Your task to perform on an android device: Clear all items from cart on ebay.com. Add bose soundlink to the cart on ebay.com Image 0: 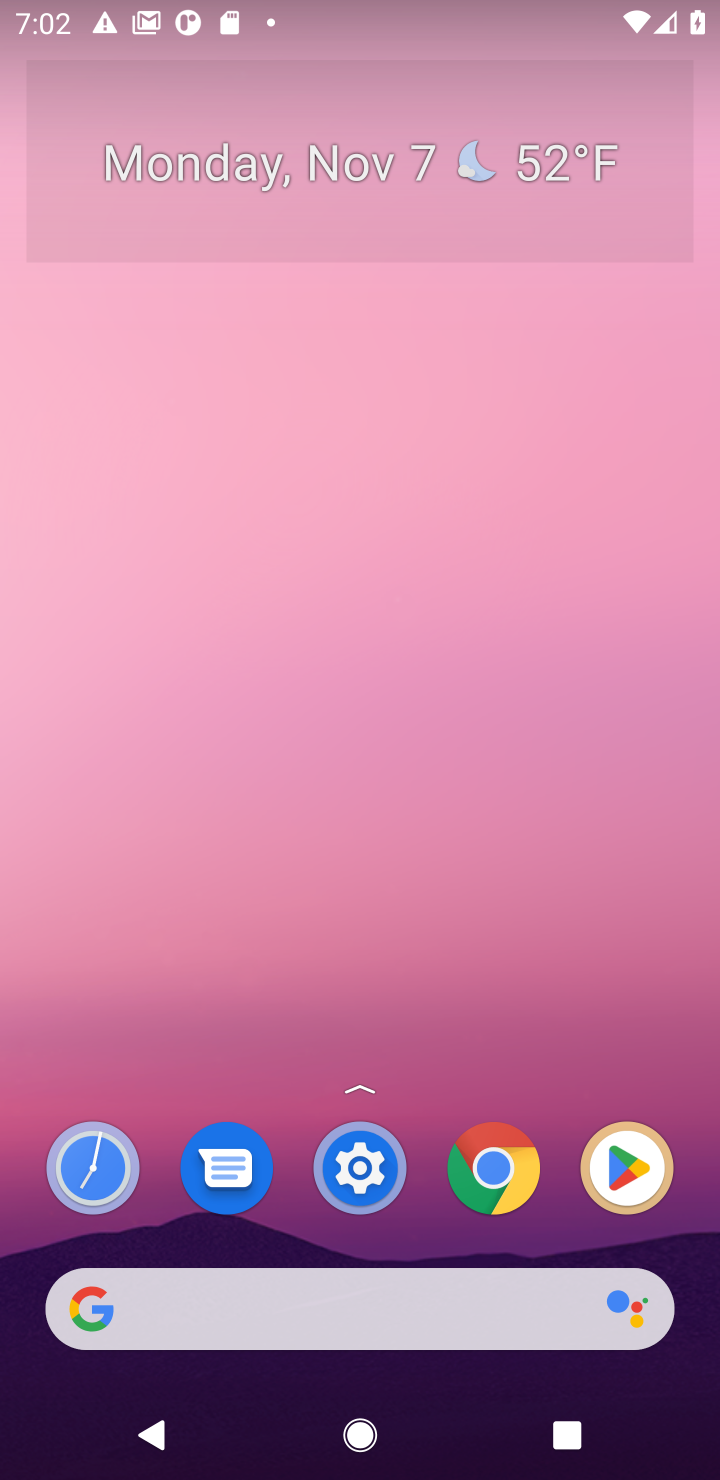
Step 0: click (376, 1291)
Your task to perform on an android device: Clear all items from cart on ebay.com. Add bose soundlink to the cart on ebay.com Image 1: 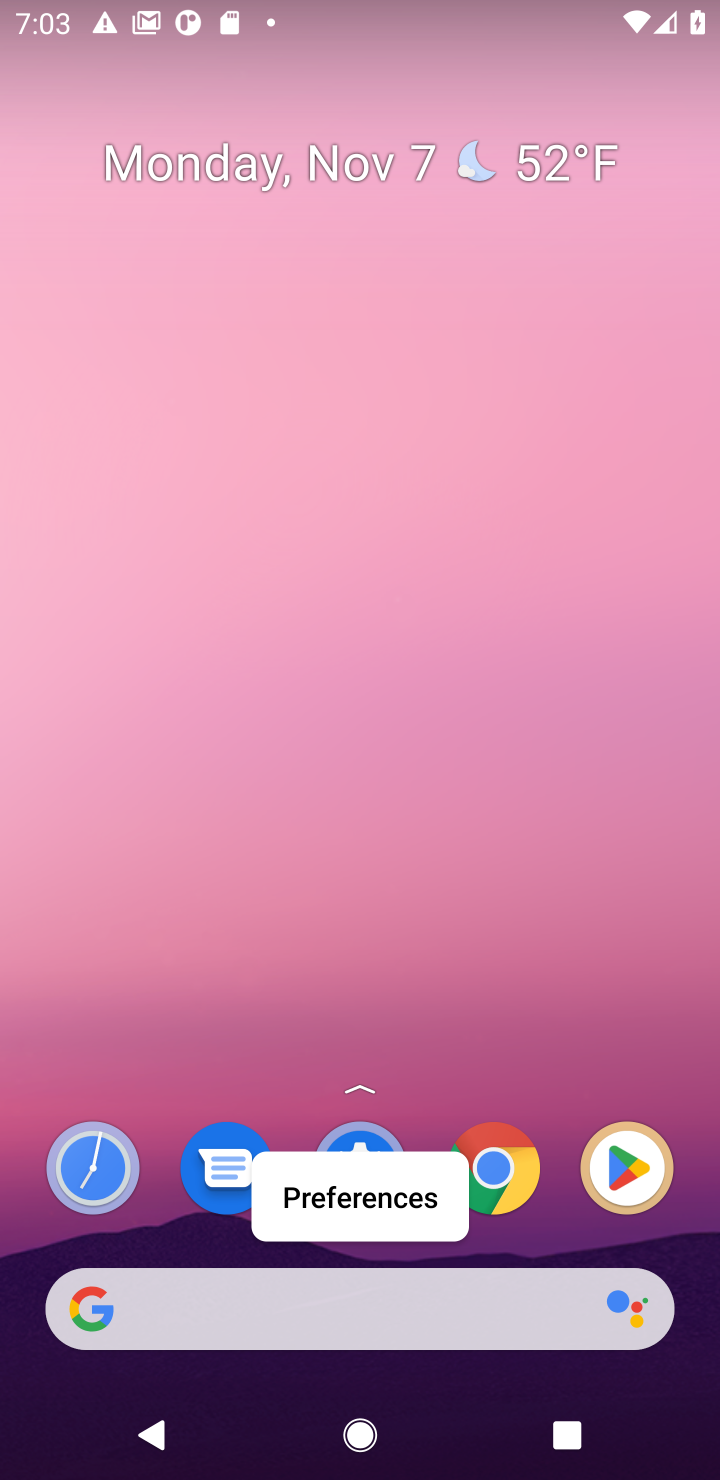
Step 1: click (376, 1291)
Your task to perform on an android device: Clear all items from cart on ebay.com. Add bose soundlink to the cart on ebay.com Image 2: 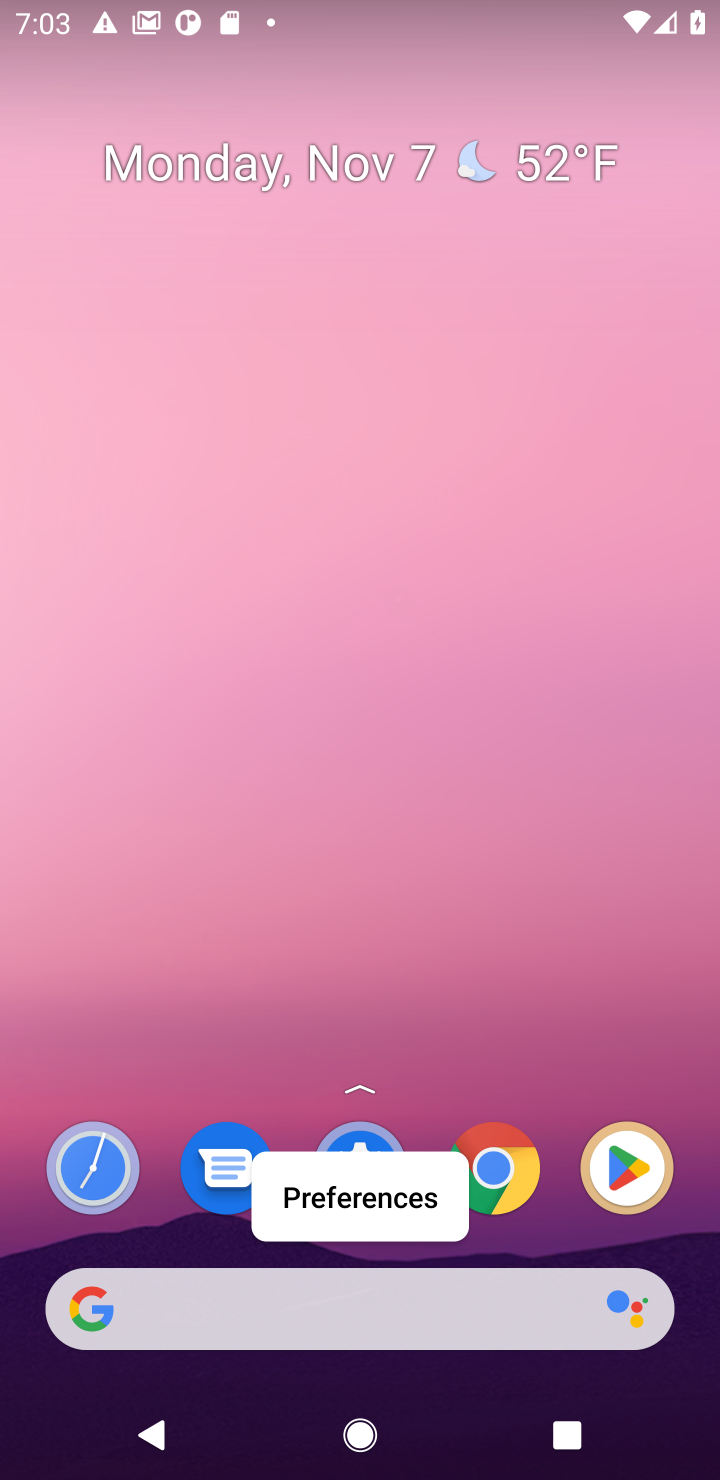
Step 2: click (357, 1320)
Your task to perform on an android device: Clear all items from cart on ebay.com. Add bose soundlink to the cart on ebay.com Image 3: 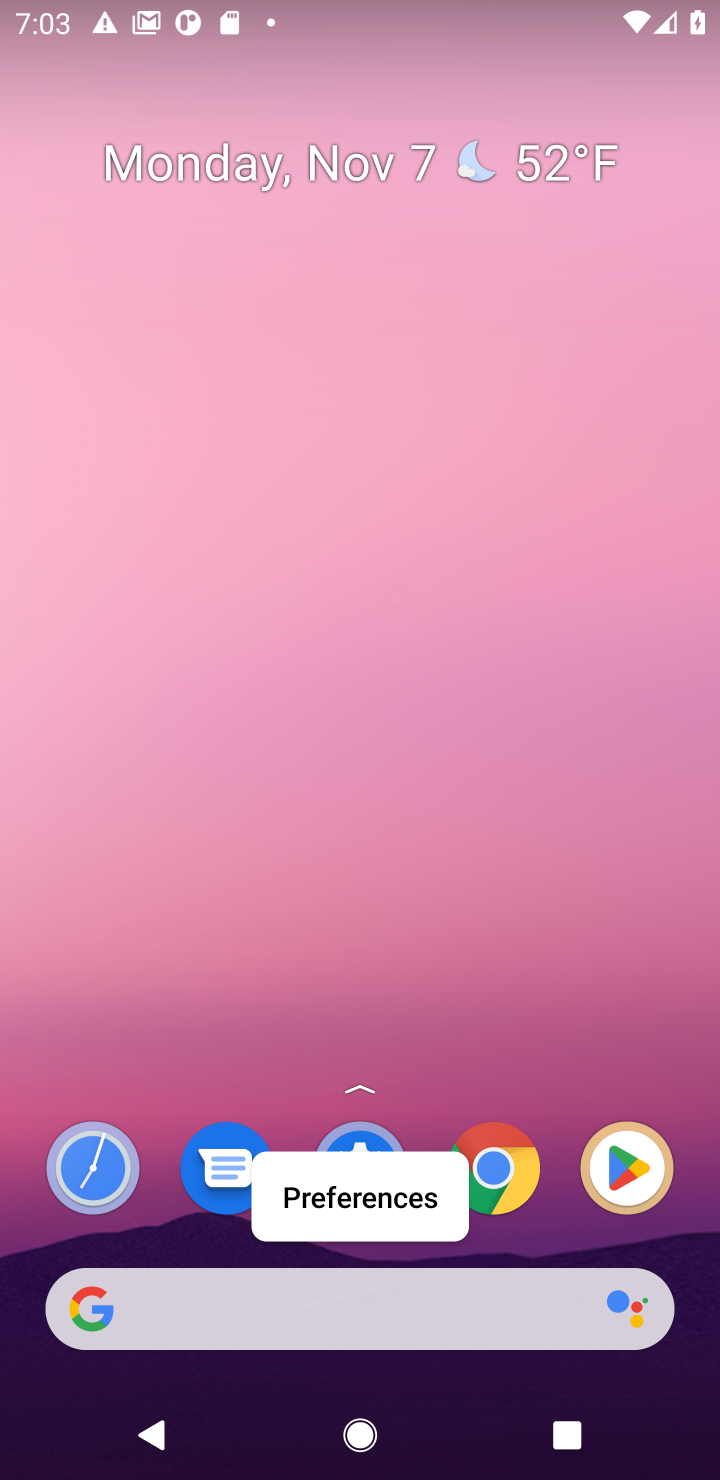
Step 3: click (380, 1285)
Your task to perform on an android device: Clear all items from cart on ebay.com. Add bose soundlink to the cart on ebay.com Image 4: 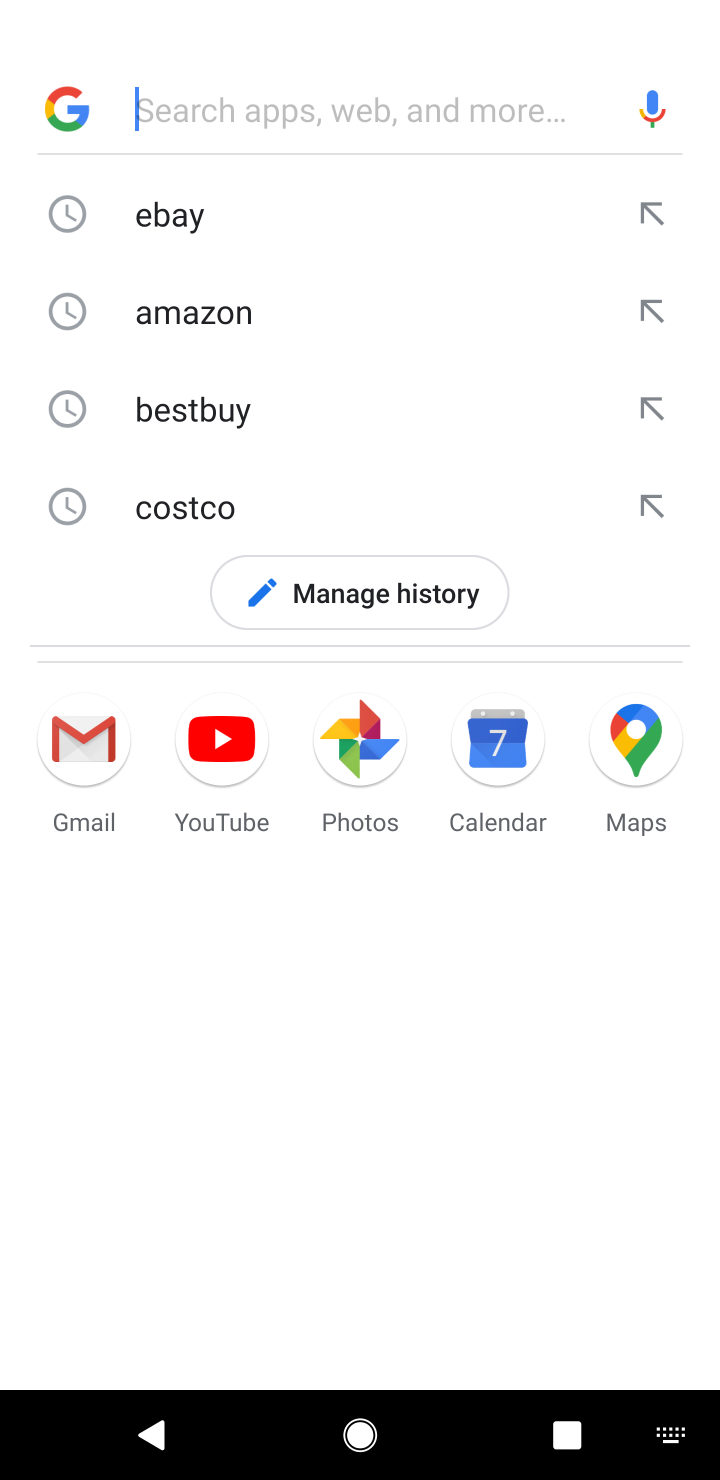
Step 4: type "ebay.com"
Your task to perform on an android device: Clear all items from cart on ebay.com. Add bose soundlink to the cart on ebay.com Image 5: 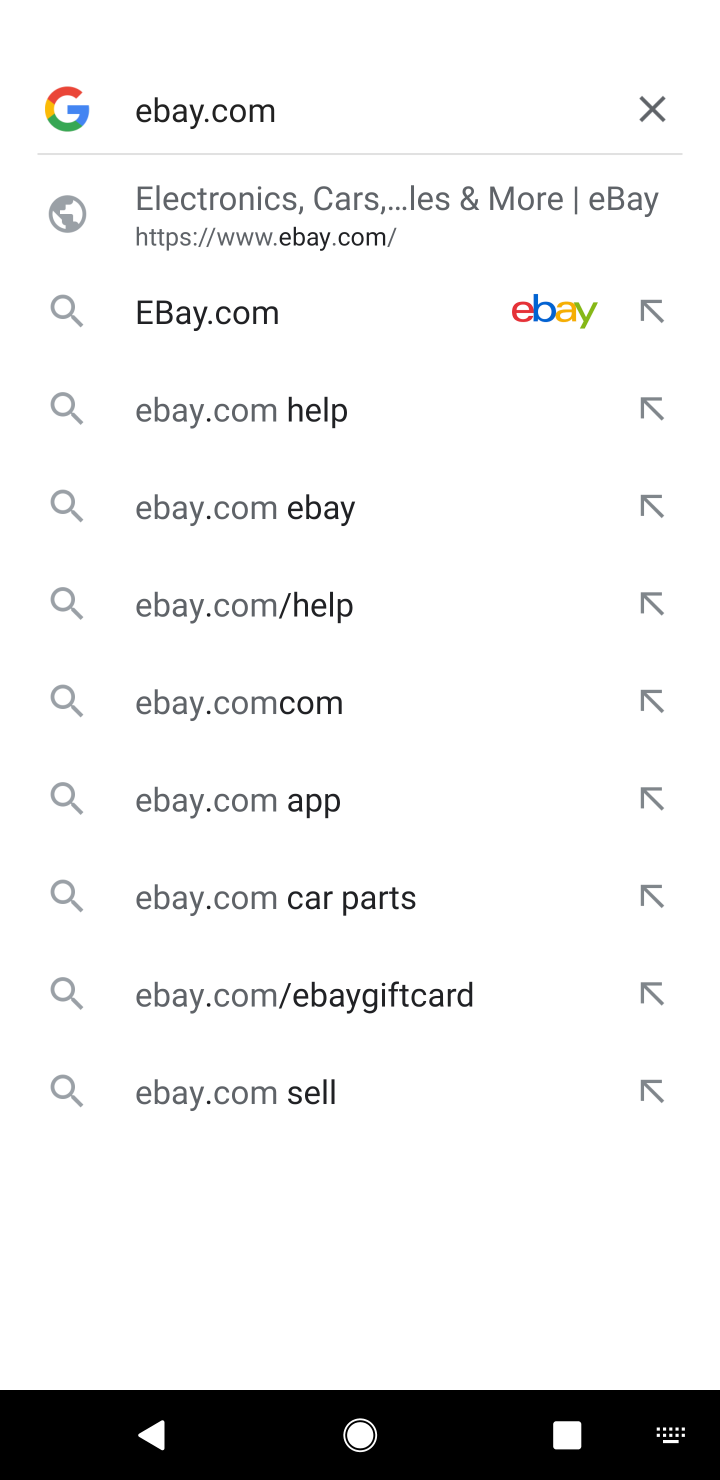
Step 5: type ""
Your task to perform on an android device: Clear all items from cart on ebay.com. Add bose soundlink to the cart on ebay.com Image 6: 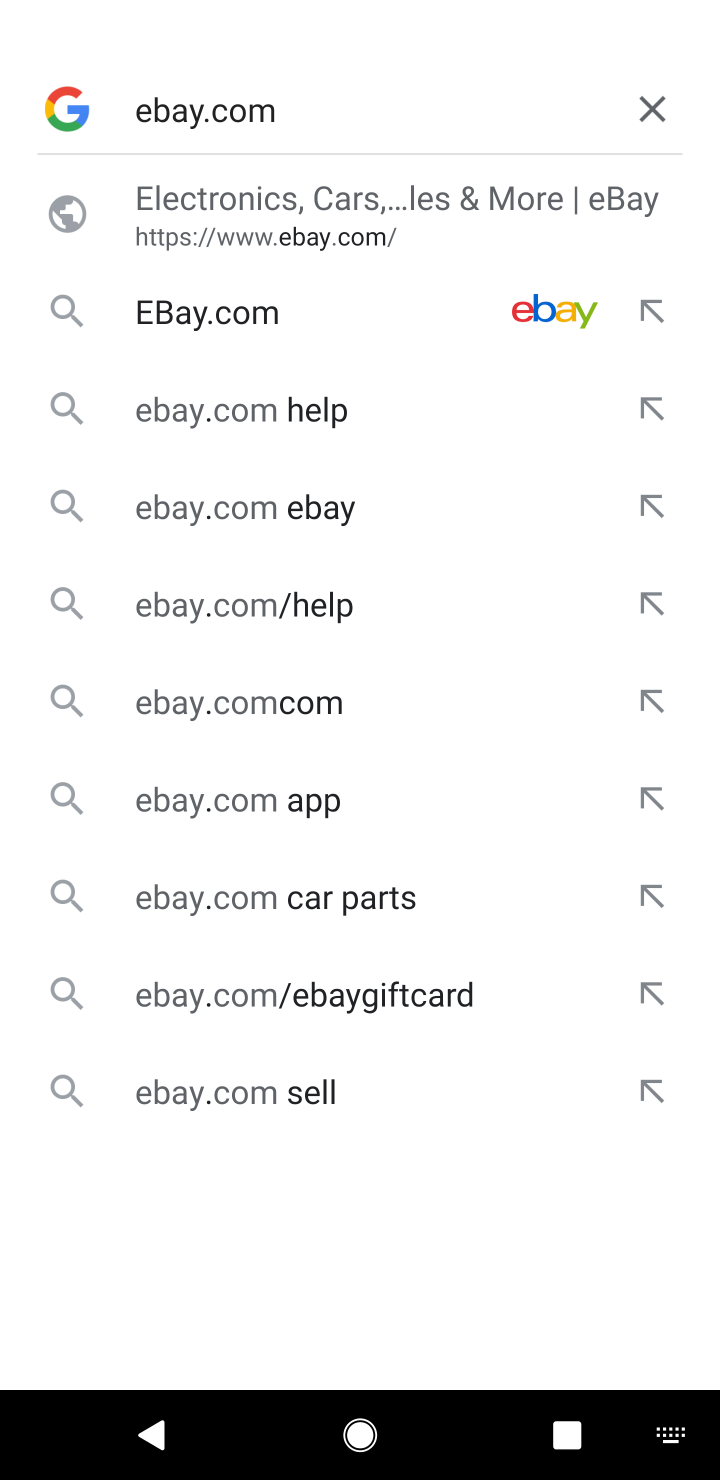
Step 6: press enter
Your task to perform on an android device: Clear all items from cart on ebay.com. Add bose soundlink to the cart on ebay.com Image 7: 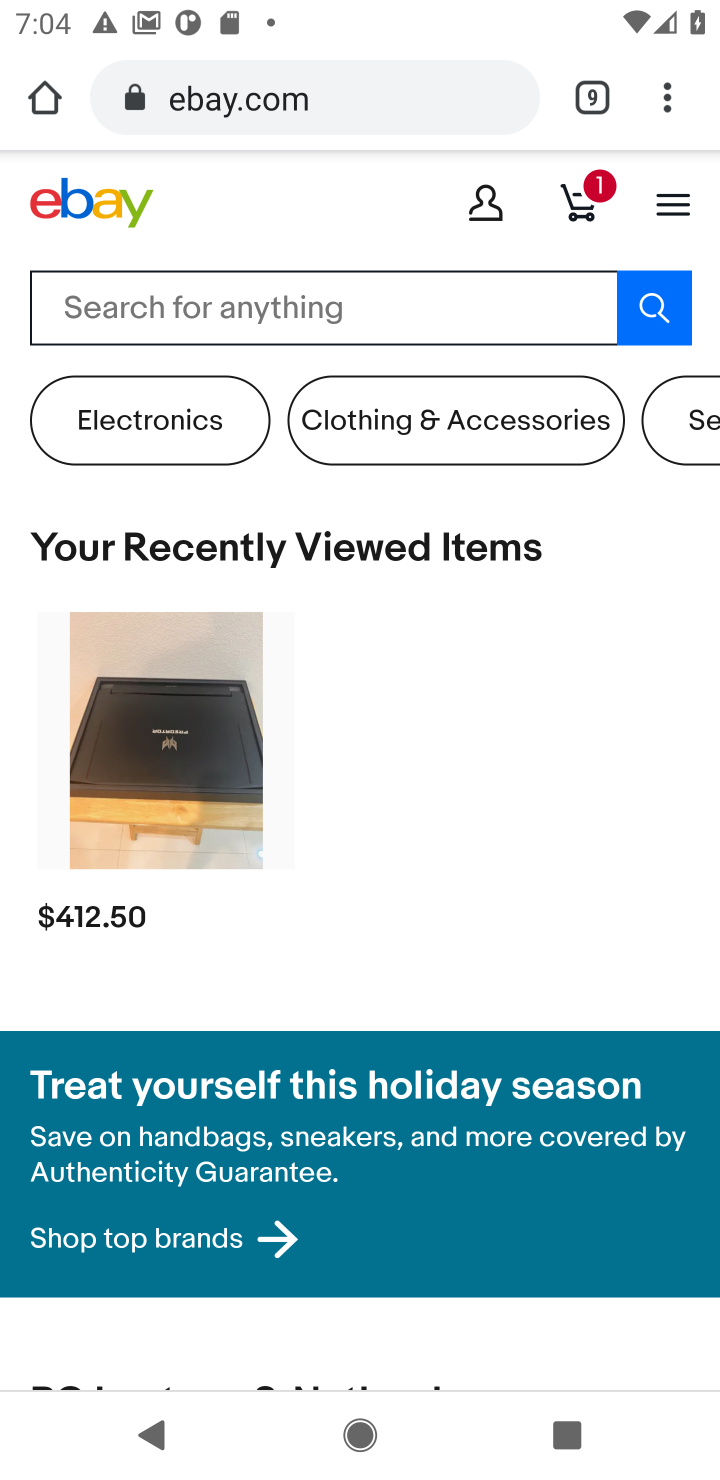
Step 7: click (242, 305)
Your task to perform on an android device: Clear all items from cart on ebay.com. Add bose soundlink to the cart on ebay.com Image 8: 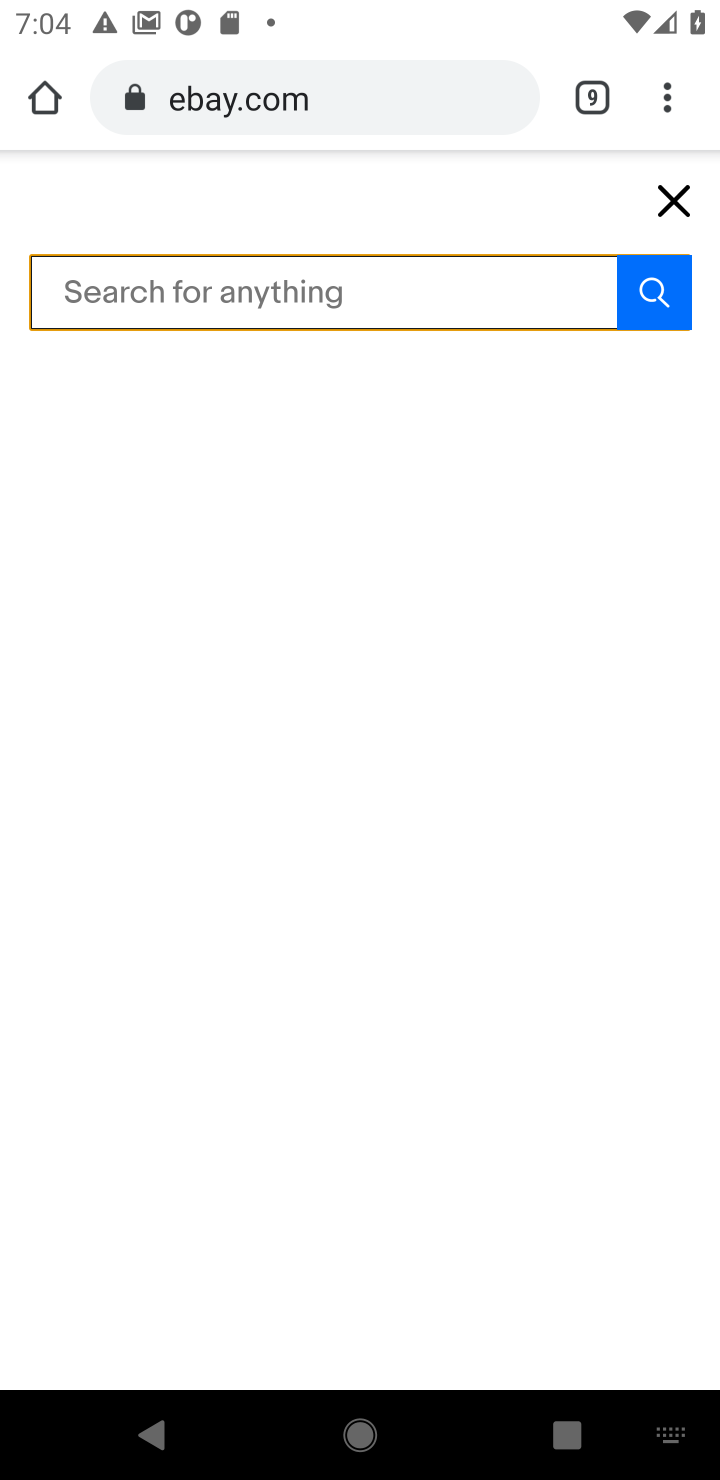
Step 8: click (659, 224)
Your task to perform on an android device: Clear all items from cart on ebay.com. Add bose soundlink to the cart on ebay.com Image 9: 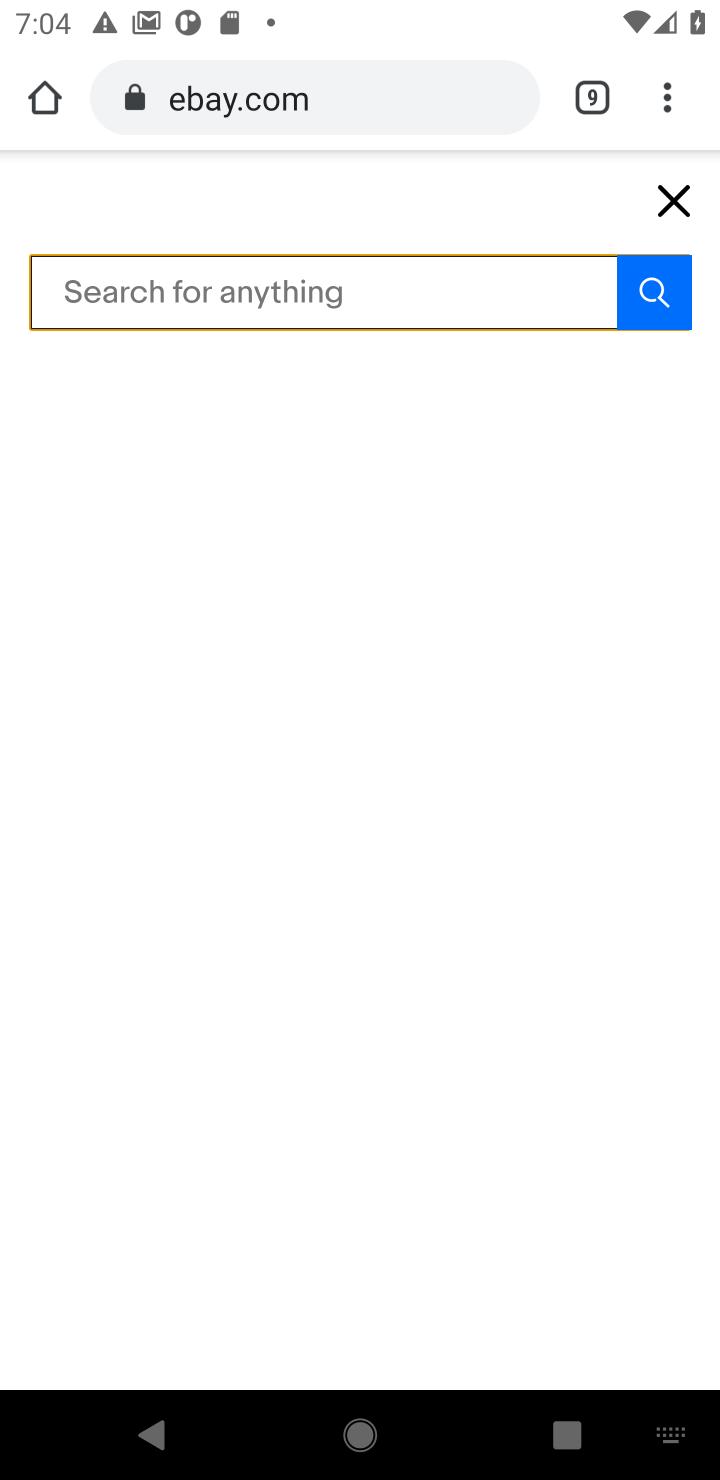
Step 9: click (677, 204)
Your task to perform on an android device: Clear all items from cart on ebay.com. Add bose soundlink to the cart on ebay.com Image 10: 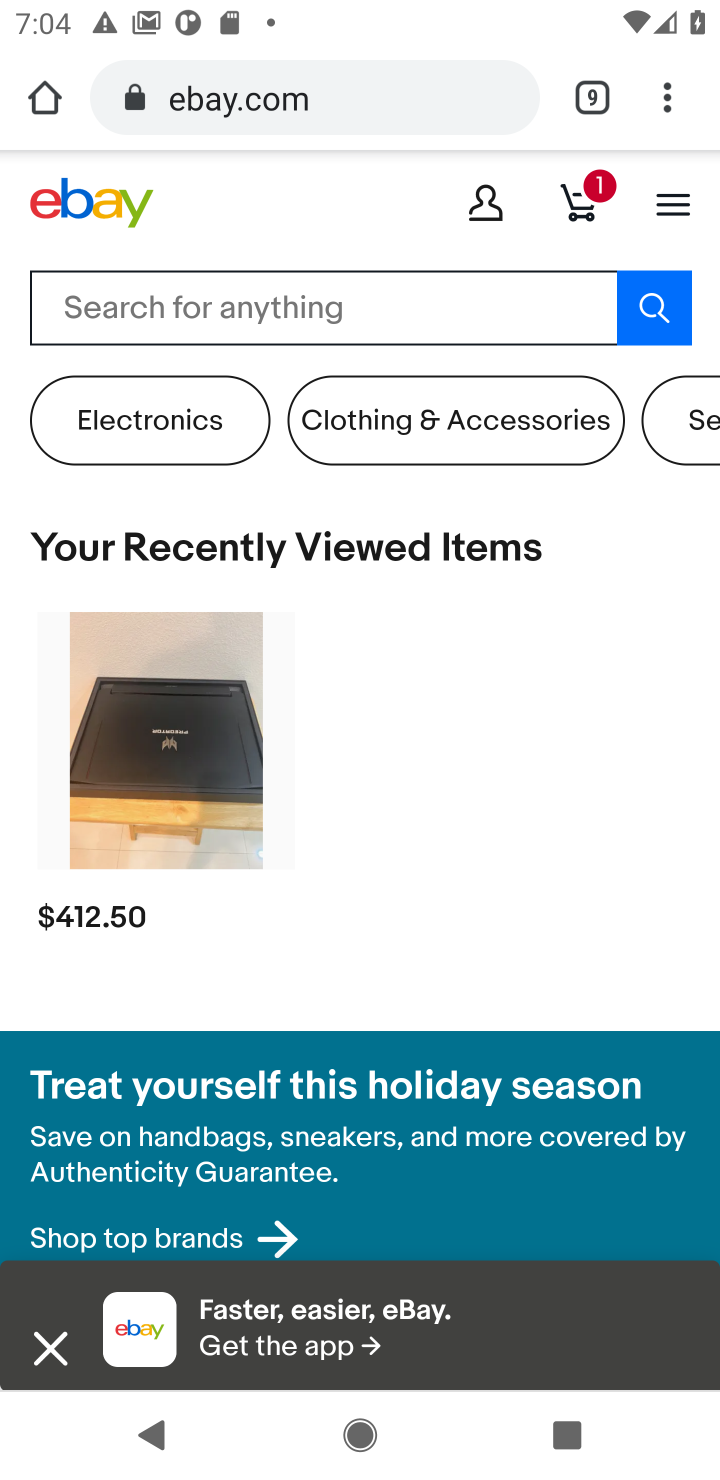
Step 10: click (590, 204)
Your task to perform on an android device: Clear all items from cart on ebay.com. Add bose soundlink to the cart on ebay.com Image 11: 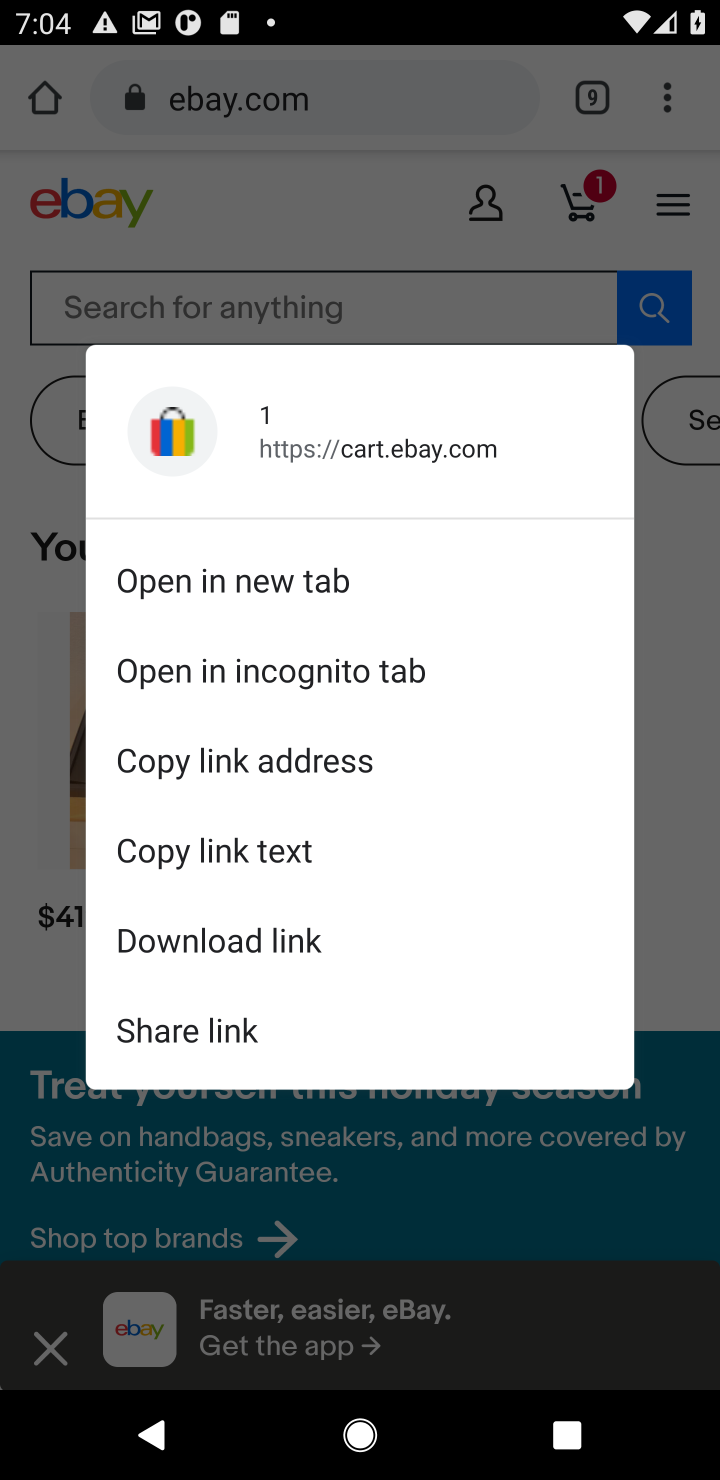
Step 11: click (573, 190)
Your task to perform on an android device: Clear all items from cart on ebay.com. Add bose soundlink to the cart on ebay.com Image 12: 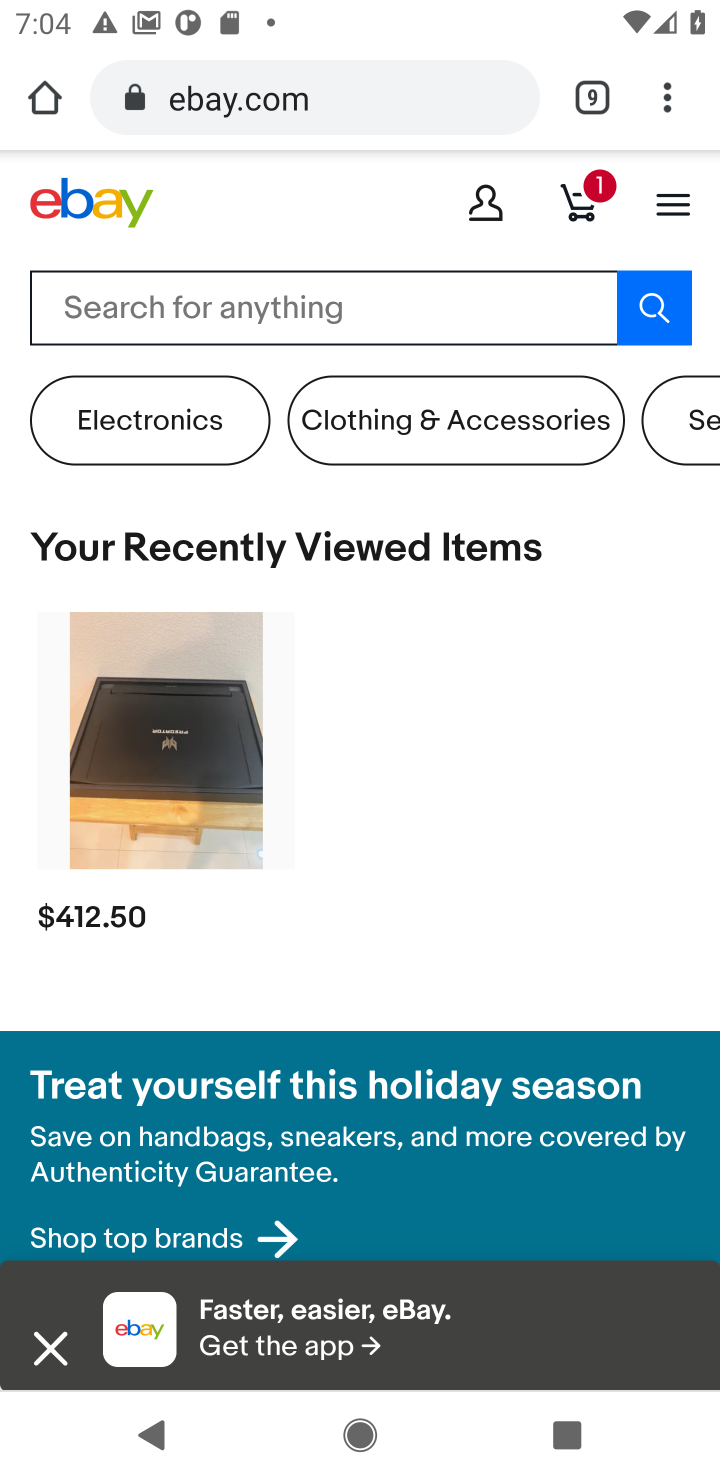
Step 12: click (573, 190)
Your task to perform on an android device: Clear all items from cart on ebay.com. Add bose soundlink to the cart on ebay.com Image 13: 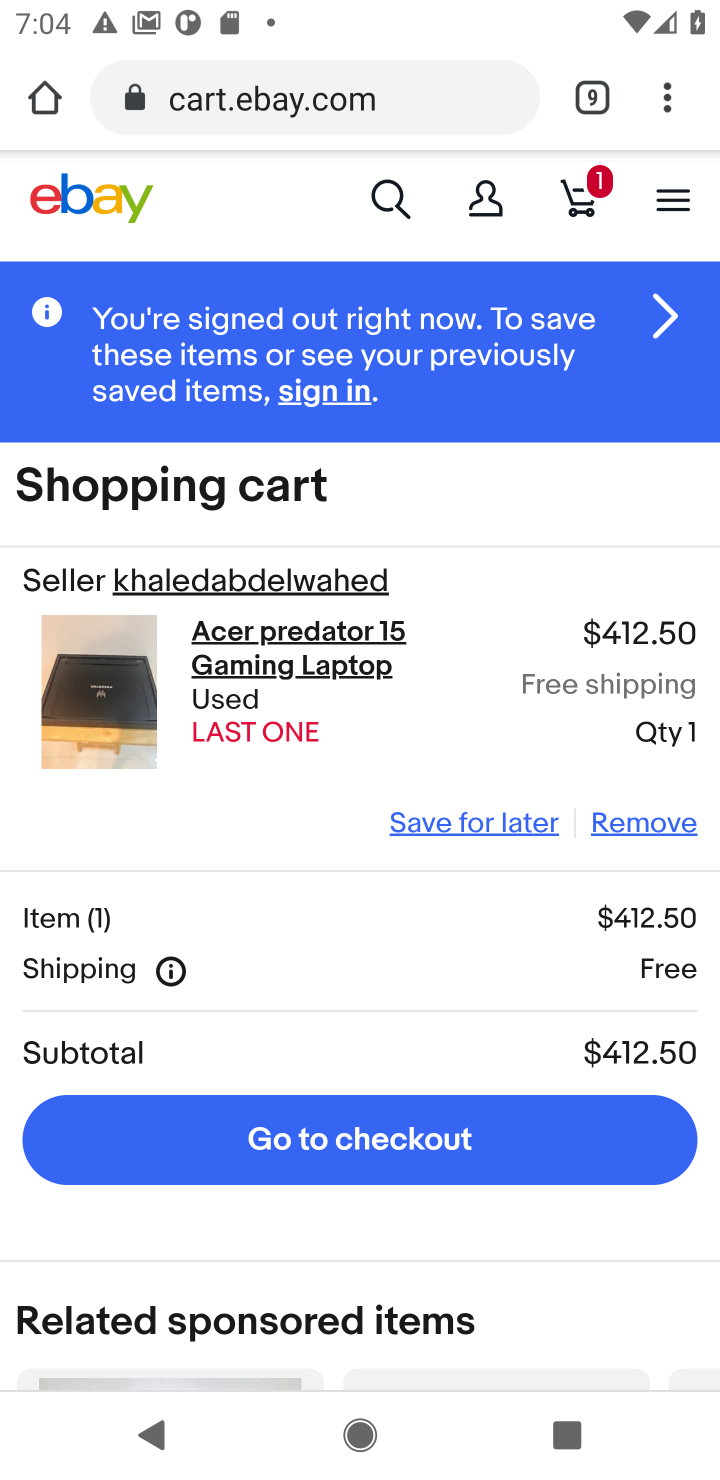
Step 13: click (629, 822)
Your task to perform on an android device: Clear all items from cart on ebay.com. Add bose soundlink to the cart on ebay.com Image 14: 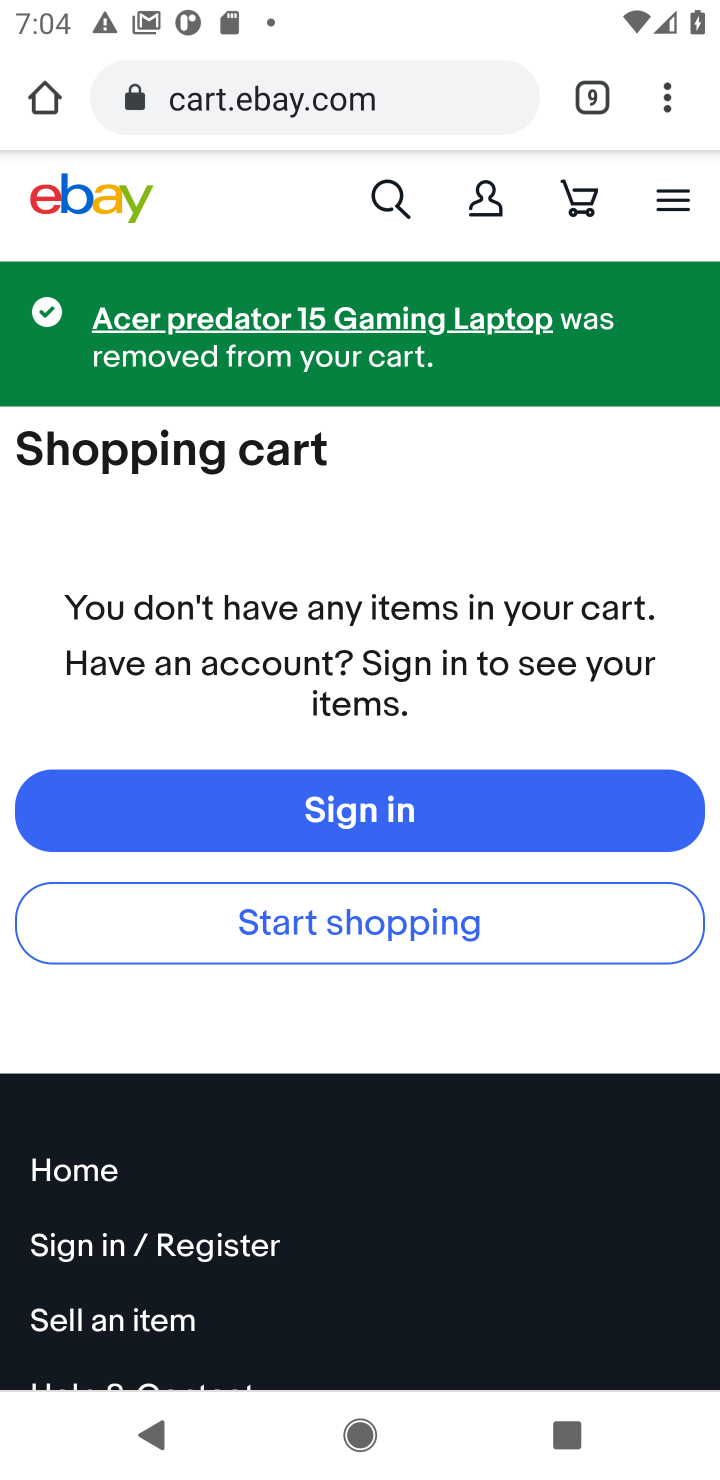
Step 14: click (395, 197)
Your task to perform on an android device: Clear all items from cart on ebay.com. Add bose soundlink to the cart on ebay.com Image 15: 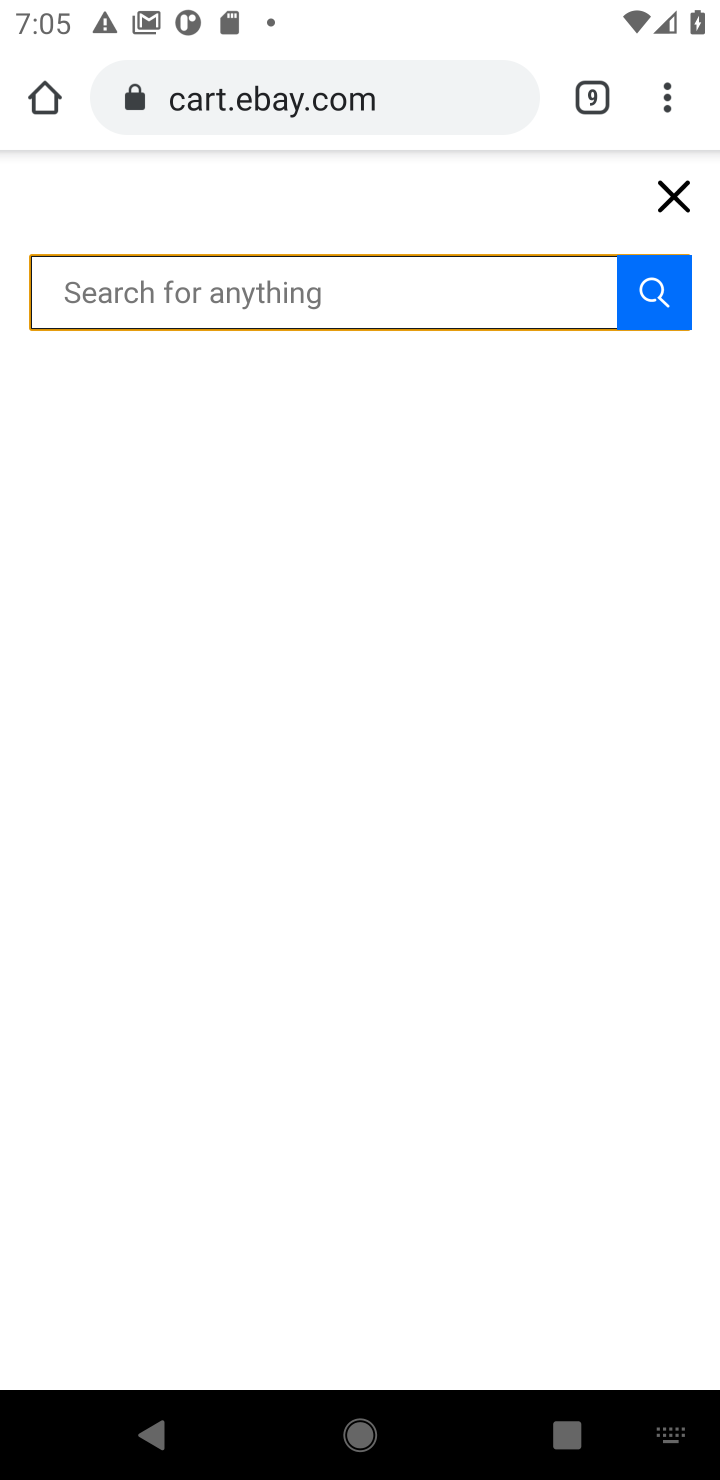
Step 15: type "bose soundlin"
Your task to perform on an android device: Clear all items from cart on ebay.com. Add bose soundlink to the cart on ebay.com Image 16: 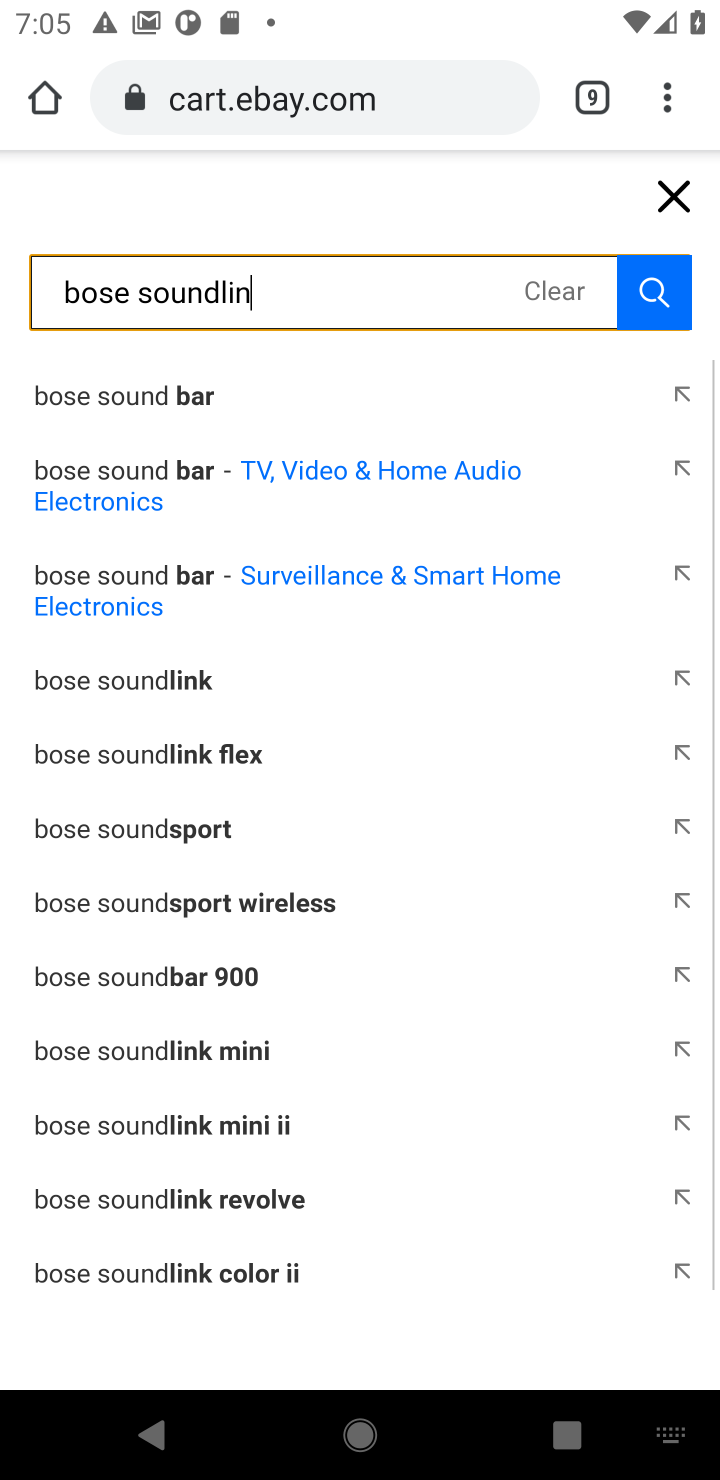
Step 16: press enter
Your task to perform on an android device: Clear all items from cart on ebay.com. Add bose soundlink to the cart on ebay.com Image 17: 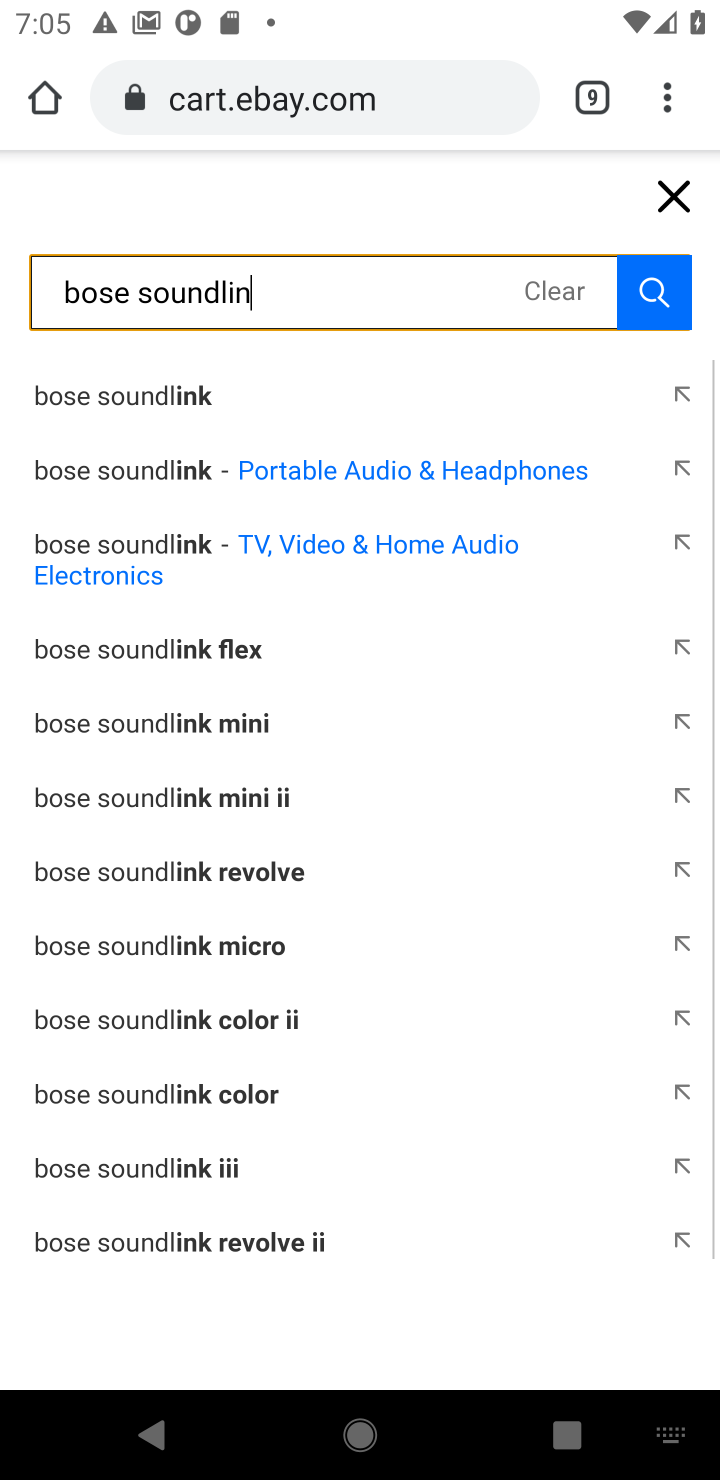
Step 17: type ""
Your task to perform on an android device: Clear all items from cart on ebay.com. Add bose soundlink to the cart on ebay.com Image 18: 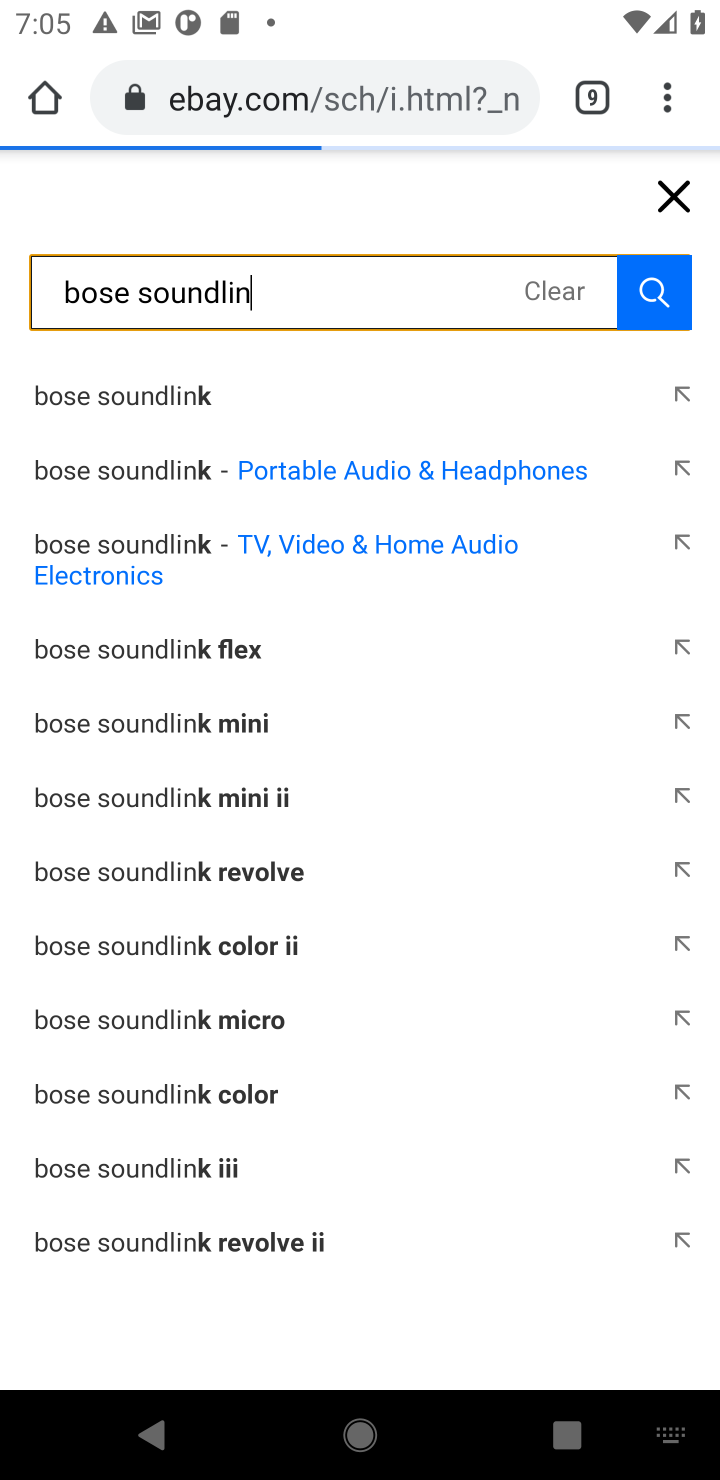
Step 18: click (638, 295)
Your task to perform on an android device: Clear all items from cart on ebay.com. Add bose soundlink to the cart on ebay.com Image 19: 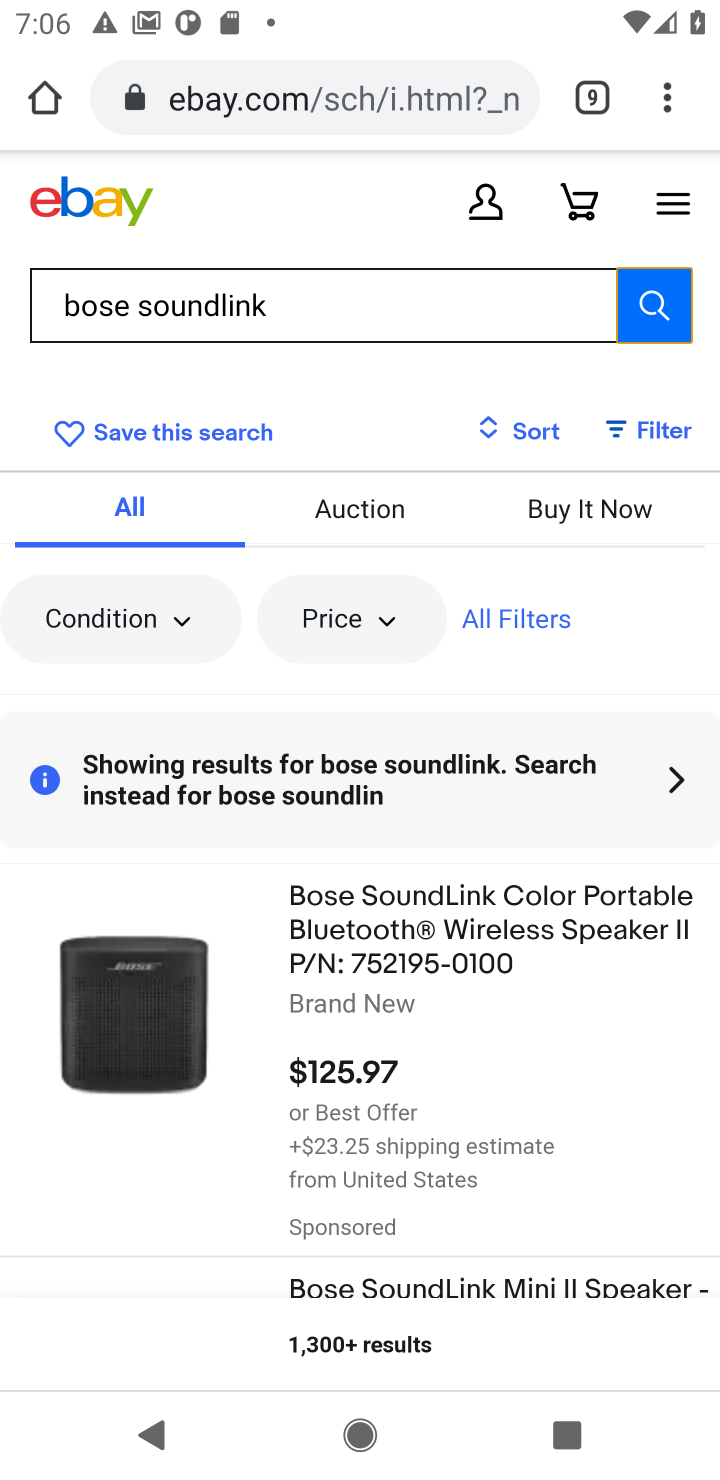
Step 19: click (394, 958)
Your task to perform on an android device: Clear all items from cart on ebay.com. Add bose soundlink to the cart on ebay.com Image 20: 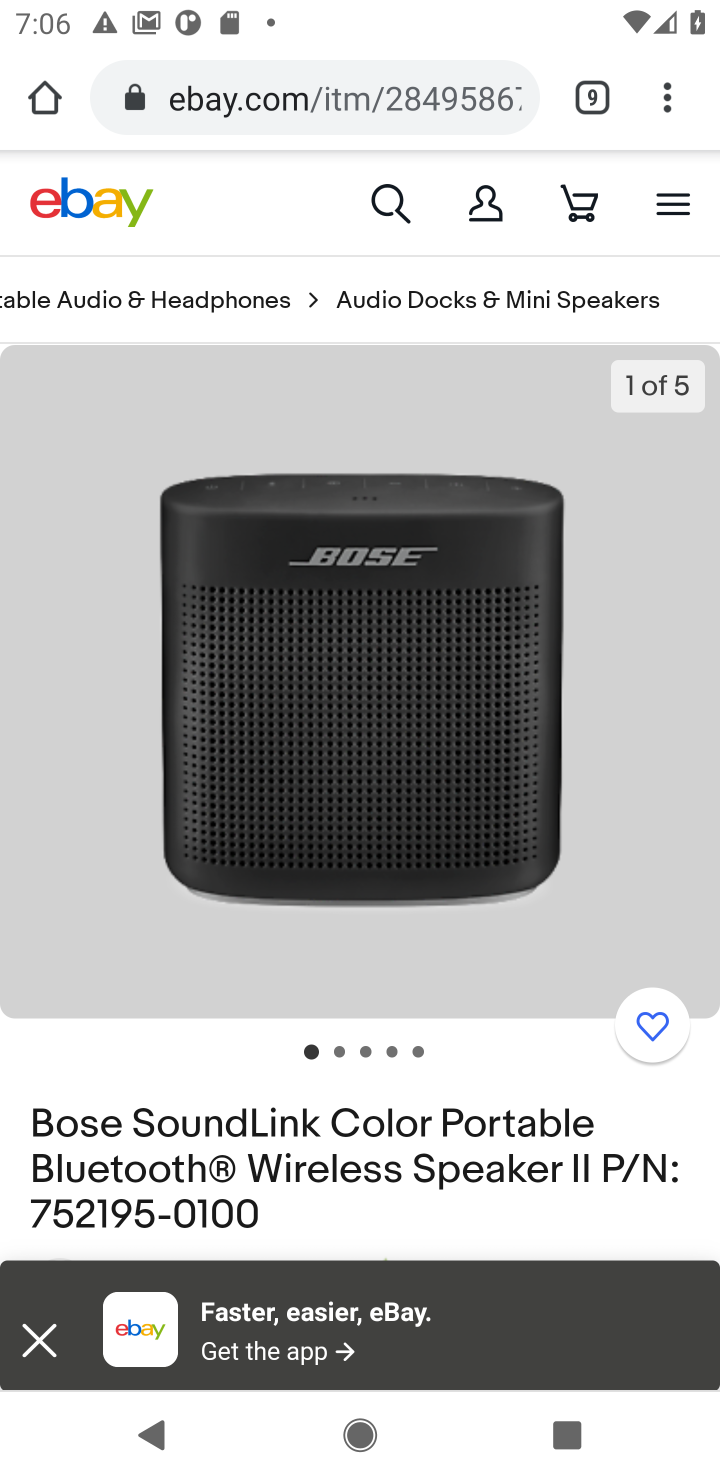
Step 20: drag from (605, 1232) to (562, 574)
Your task to perform on an android device: Clear all items from cart on ebay.com. Add bose soundlink to the cart on ebay.com Image 21: 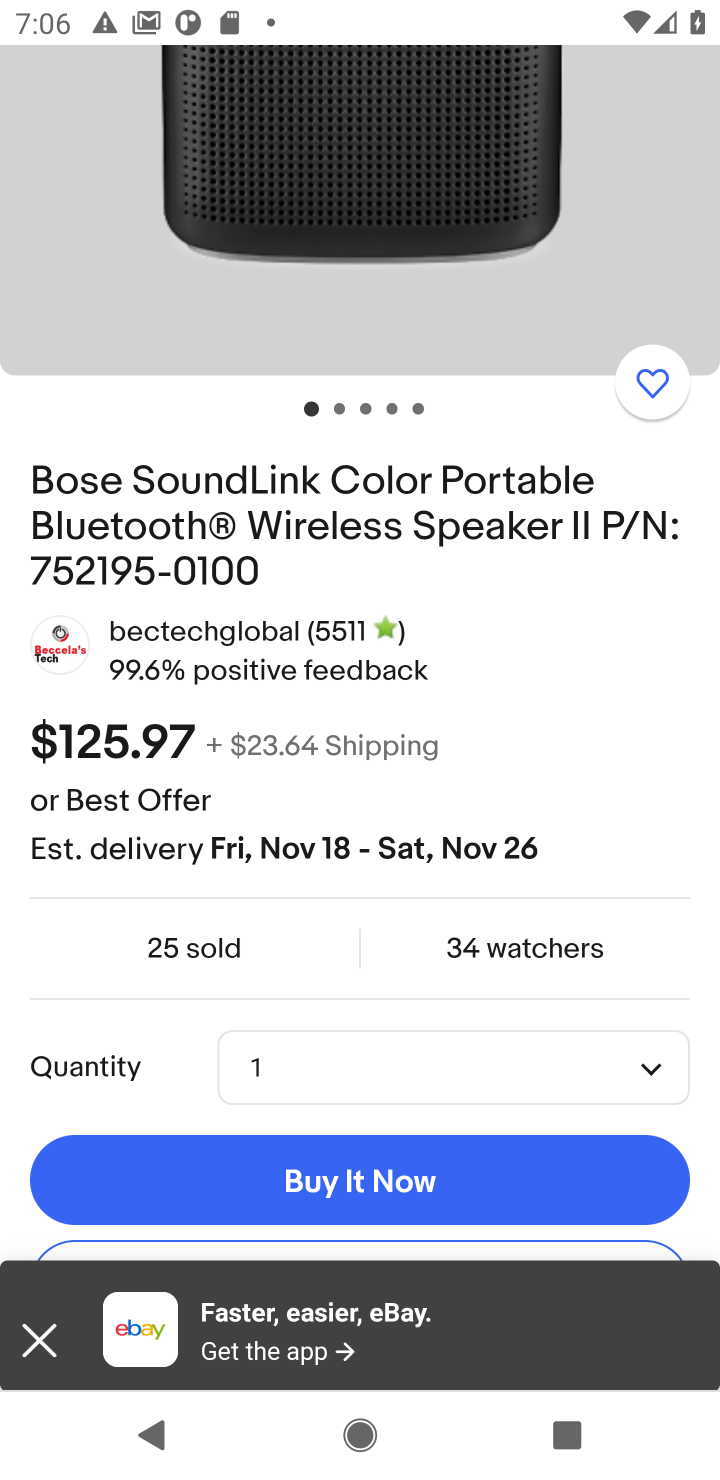
Step 21: drag from (381, 1094) to (391, 849)
Your task to perform on an android device: Clear all items from cart on ebay.com. Add bose soundlink to the cart on ebay.com Image 22: 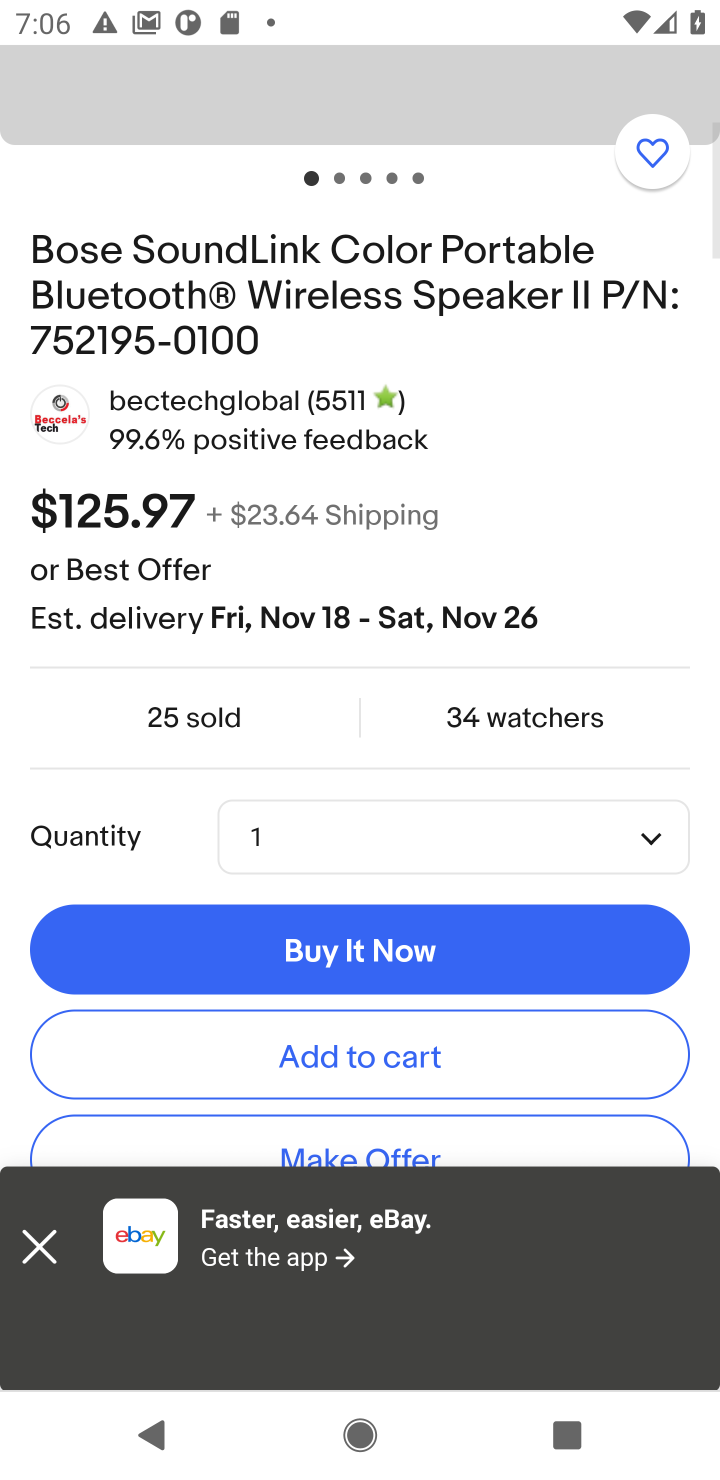
Step 22: click (347, 1064)
Your task to perform on an android device: Clear all items from cart on ebay.com. Add bose soundlink to the cart on ebay.com Image 23: 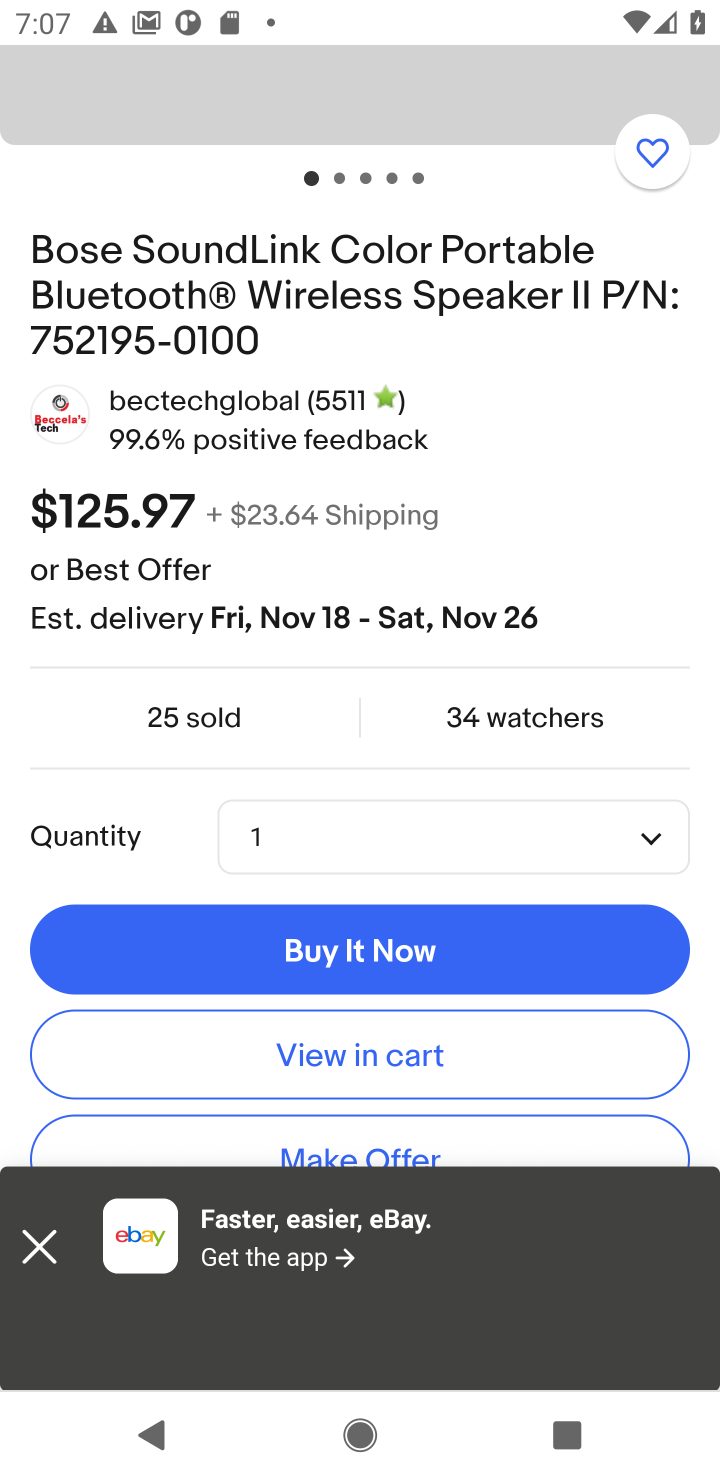
Step 23: task complete